Your task to perform on an android device: Go to notification settings Image 0: 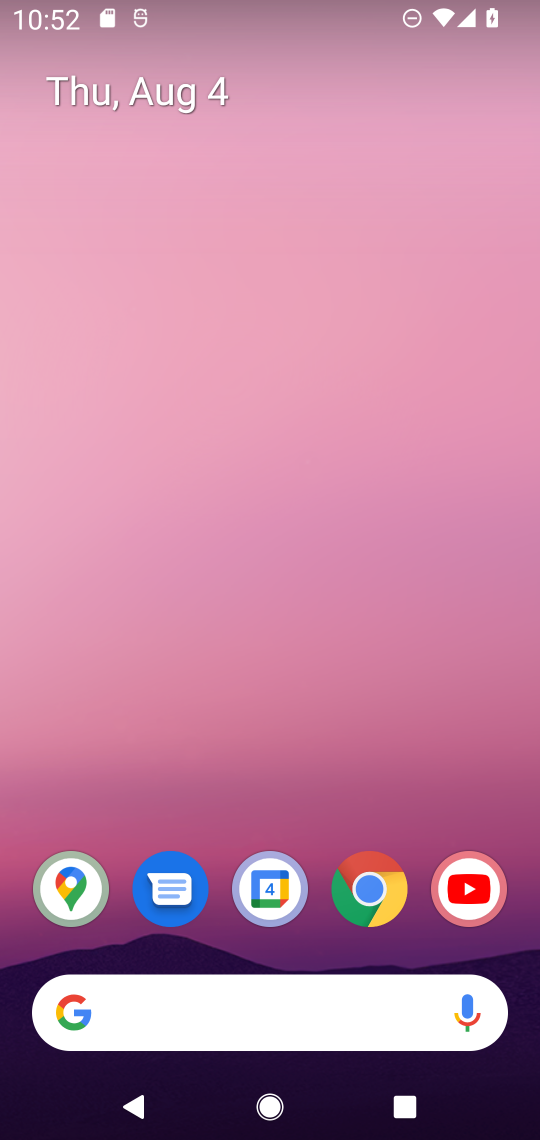
Step 0: drag from (392, 804) to (417, 259)
Your task to perform on an android device: Go to notification settings Image 1: 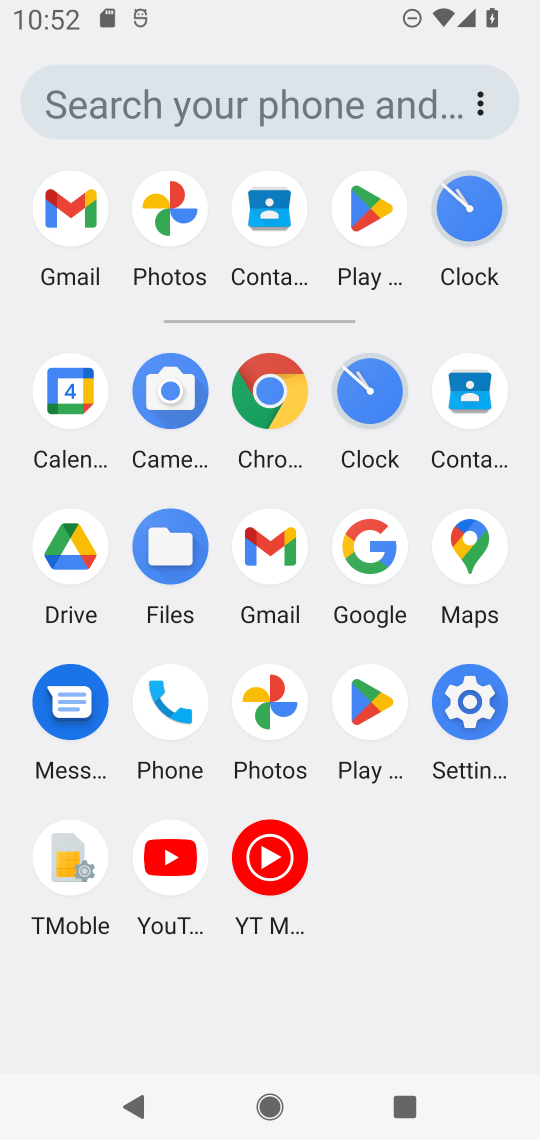
Step 1: click (449, 728)
Your task to perform on an android device: Go to notification settings Image 2: 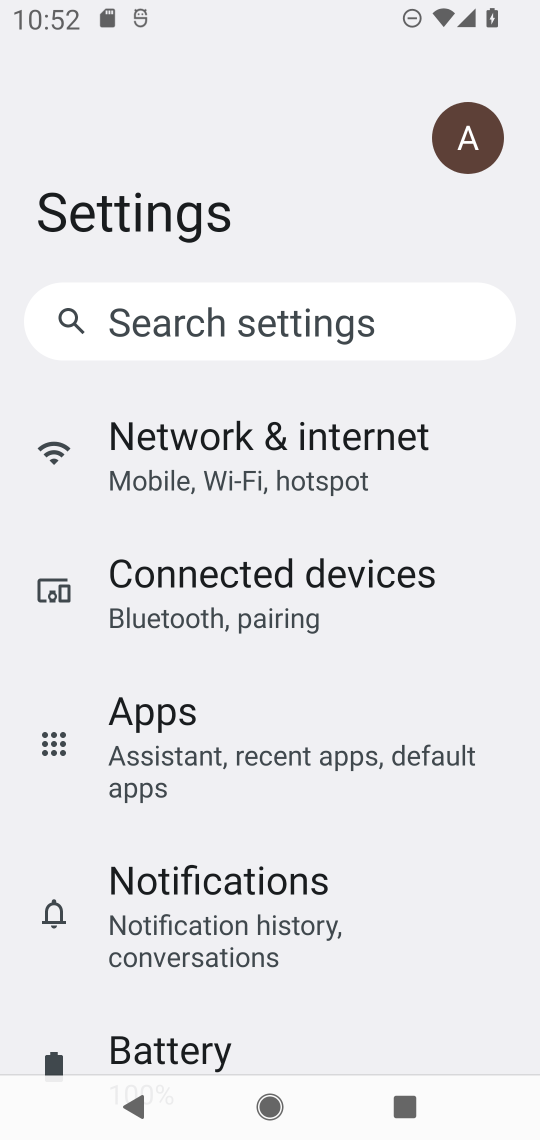
Step 2: drag from (410, 975) to (445, 733)
Your task to perform on an android device: Go to notification settings Image 3: 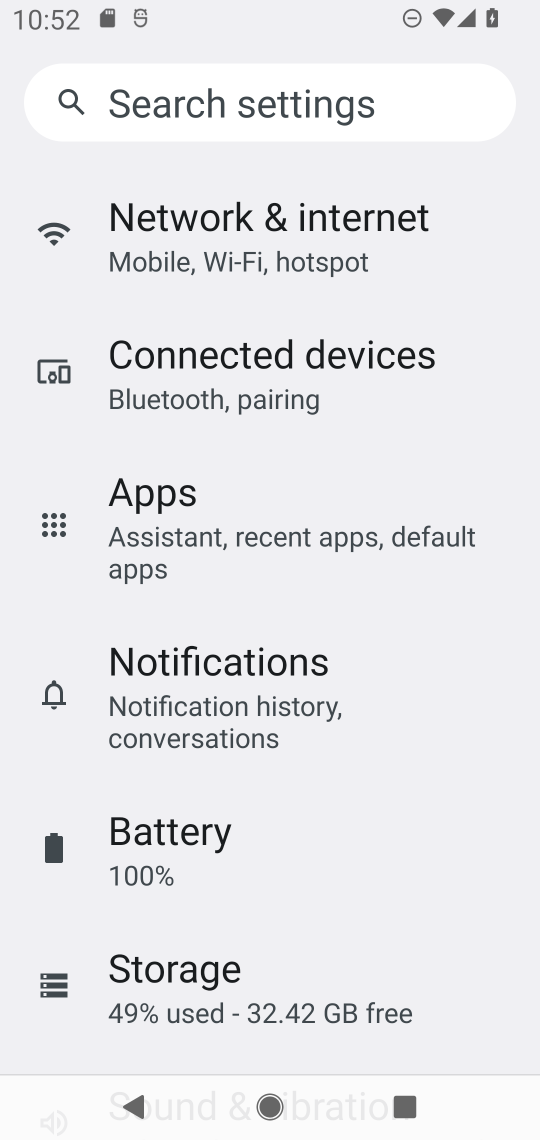
Step 3: drag from (446, 926) to (456, 704)
Your task to perform on an android device: Go to notification settings Image 4: 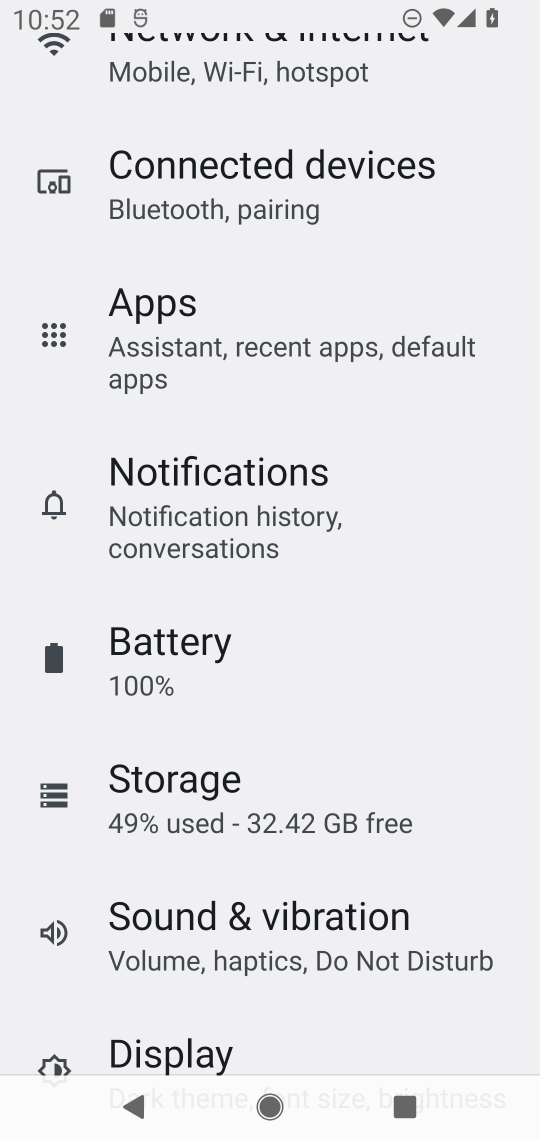
Step 4: drag from (482, 961) to (475, 755)
Your task to perform on an android device: Go to notification settings Image 5: 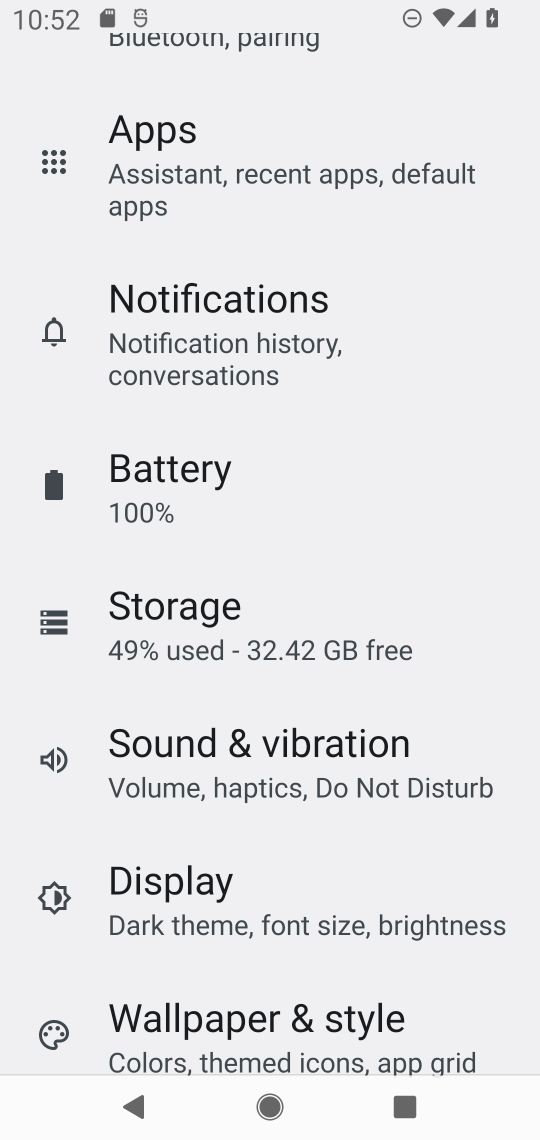
Step 5: drag from (479, 950) to (456, 712)
Your task to perform on an android device: Go to notification settings Image 6: 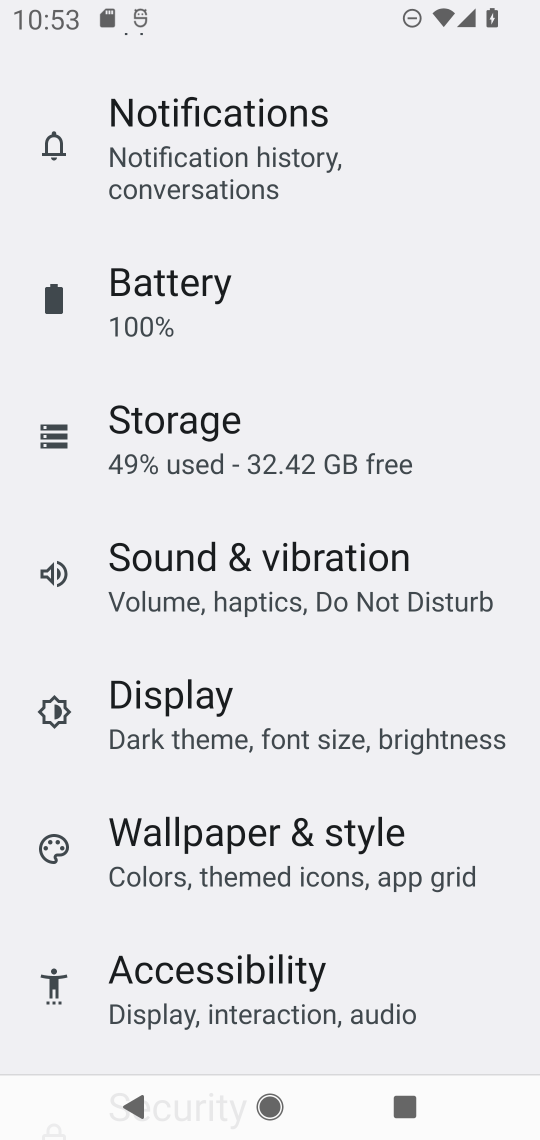
Step 6: click (277, 164)
Your task to perform on an android device: Go to notification settings Image 7: 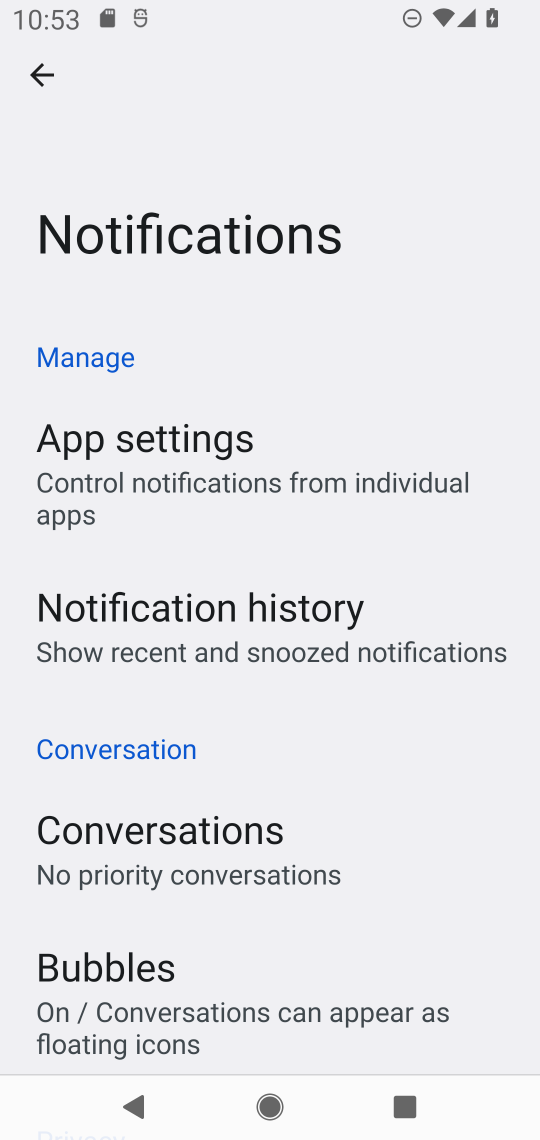
Step 7: task complete